Your task to perform on an android device: check google app version Image 0: 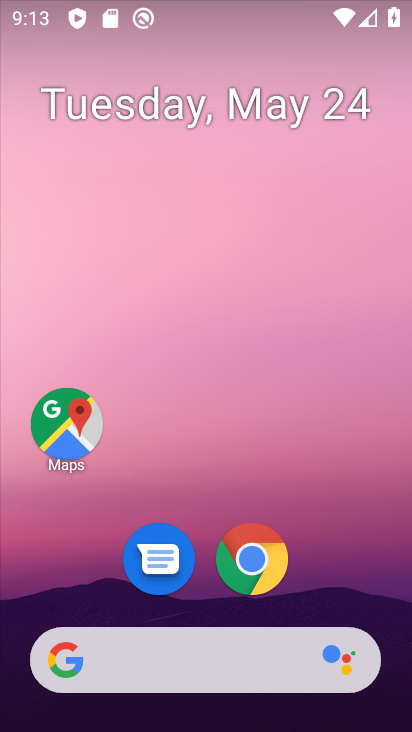
Step 0: click (237, 565)
Your task to perform on an android device: check google app version Image 1: 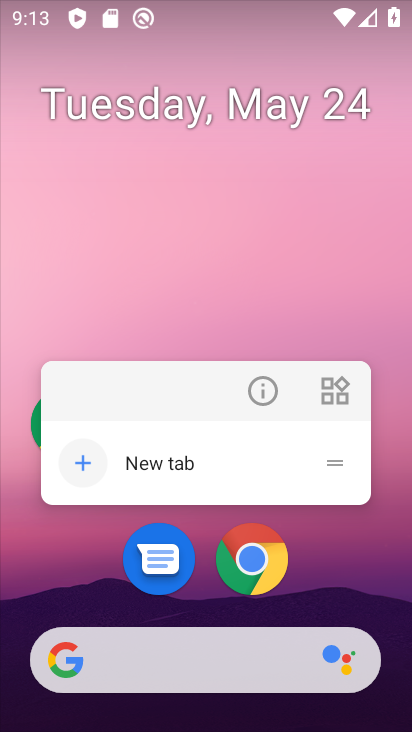
Step 1: click (256, 388)
Your task to perform on an android device: check google app version Image 2: 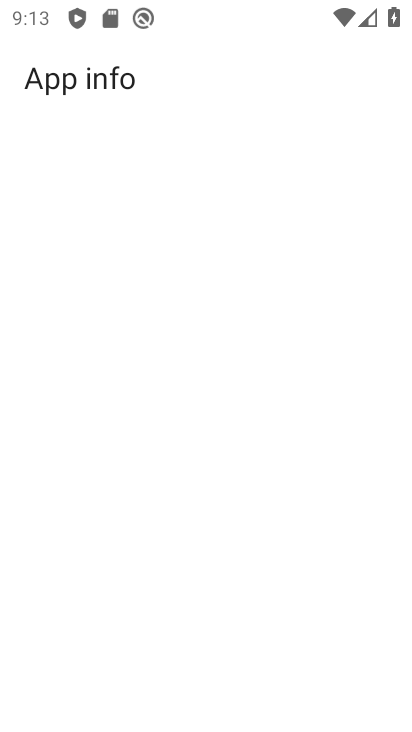
Step 2: task complete